Your task to perform on an android device: search for starred emails in the gmail app Image 0: 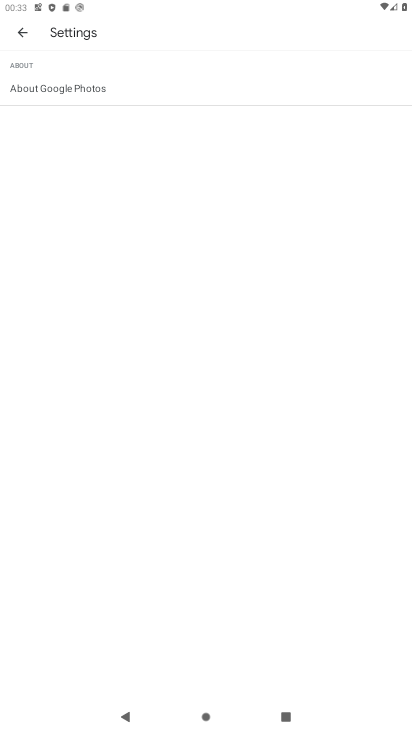
Step 0: press home button
Your task to perform on an android device: search for starred emails in the gmail app Image 1: 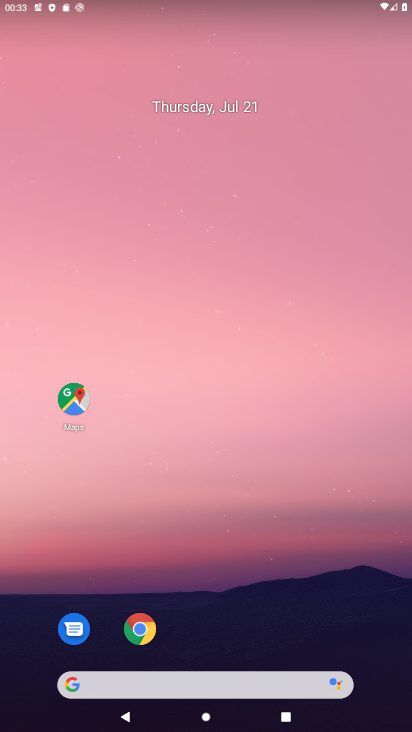
Step 1: drag from (337, 583) to (266, 37)
Your task to perform on an android device: search for starred emails in the gmail app Image 2: 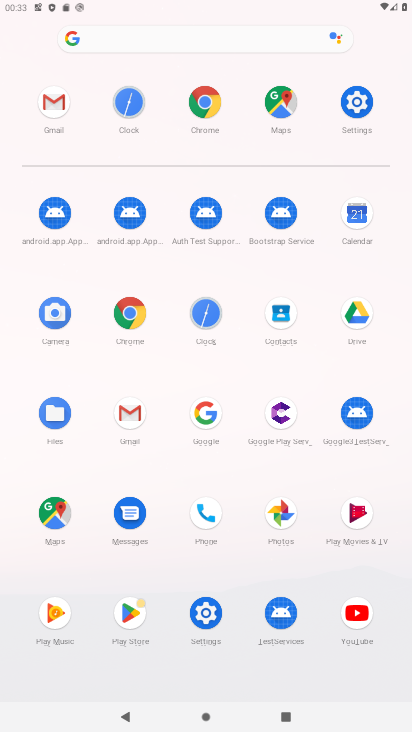
Step 2: click (66, 106)
Your task to perform on an android device: search for starred emails in the gmail app Image 3: 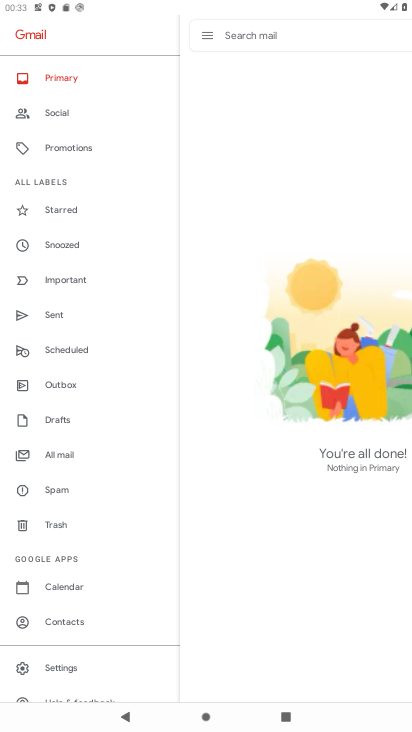
Step 3: click (70, 212)
Your task to perform on an android device: search for starred emails in the gmail app Image 4: 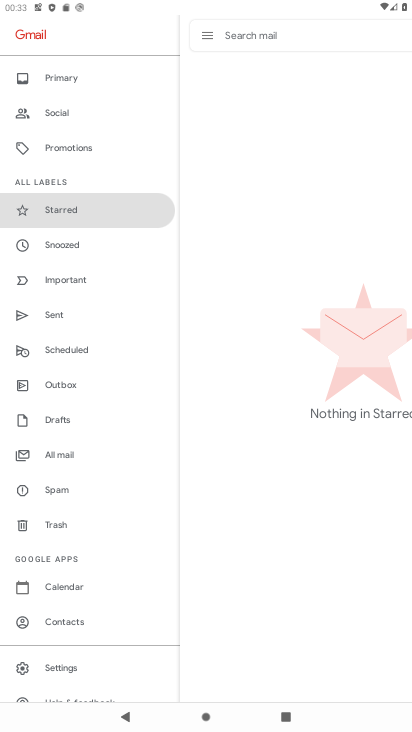
Step 4: task complete